Your task to perform on an android device: Go to Android settings Image 0: 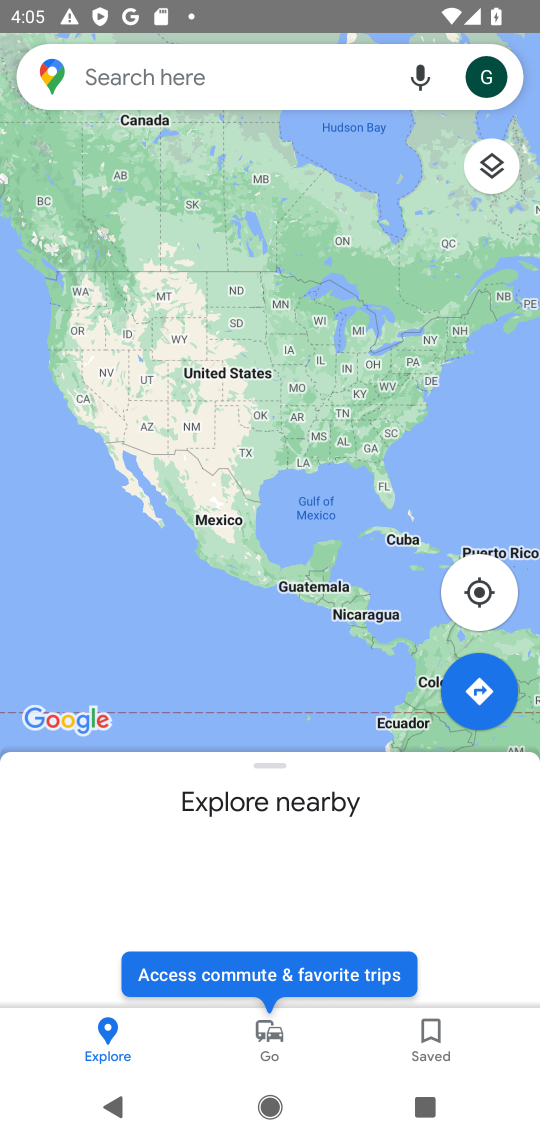
Step 0: press back button
Your task to perform on an android device: Go to Android settings Image 1: 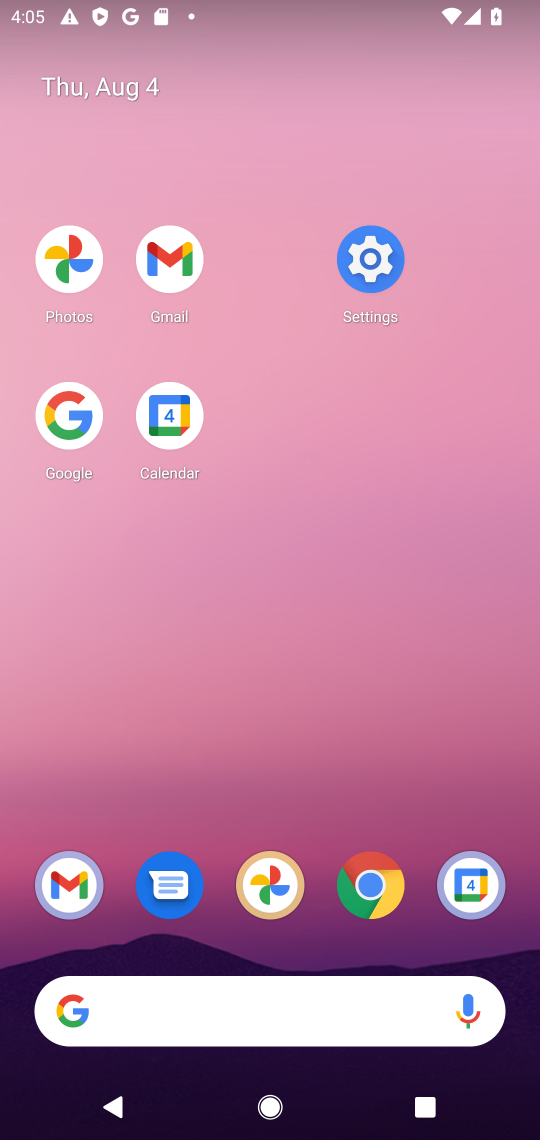
Step 1: click (373, 265)
Your task to perform on an android device: Go to Android settings Image 2: 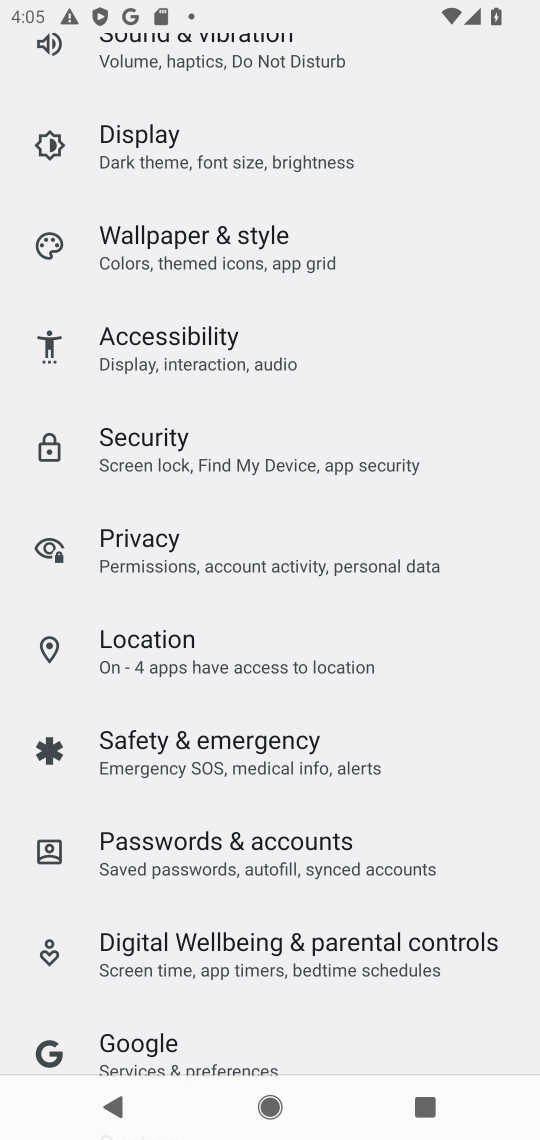
Step 2: task complete